Your task to perform on an android device: toggle data saver in the chrome app Image 0: 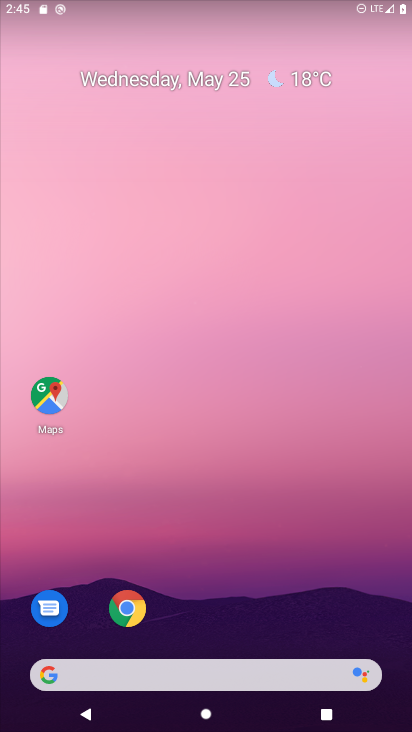
Step 0: click (127, 608)
Your task to perform on an android device: toggle data saver in the chrome app Image 1: 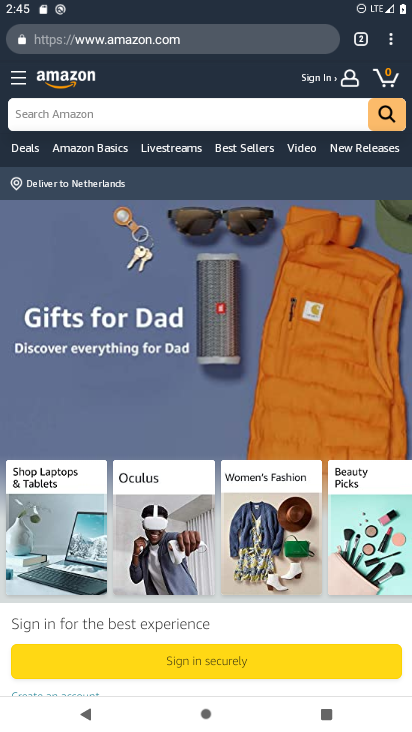
Step 1: click (388, 44)
Your task to perform on an android device: toggle data saver in the chrome app Image 2: 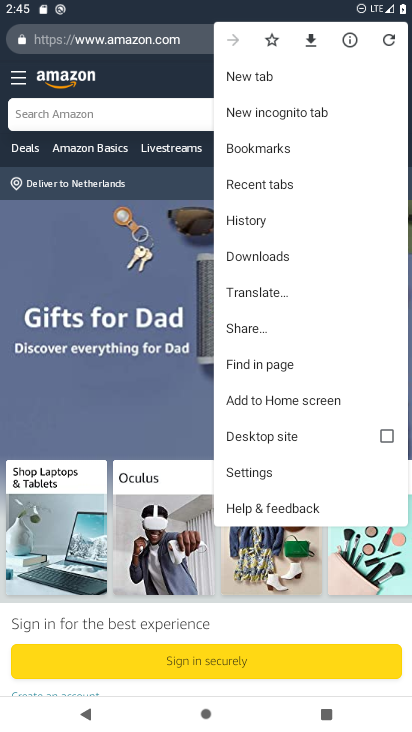
Step 2: click (252, 463)
Your task to perform on an android device: toggle data saver in the chrome app Image 3: 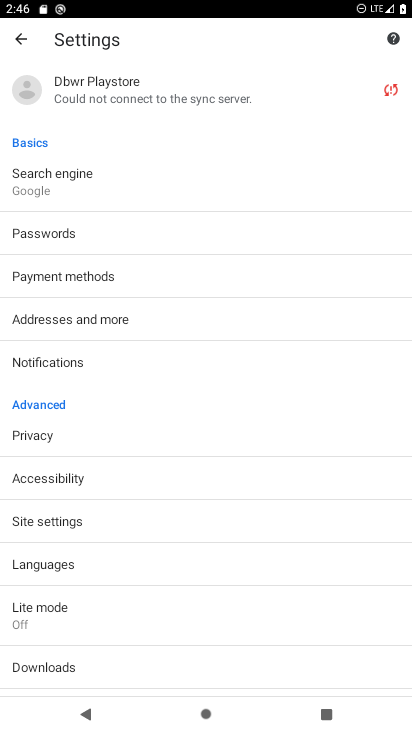
Step 3: click (39, 611)
Your task to perform on an android device: toggle data saver in the chrome app Image 4: 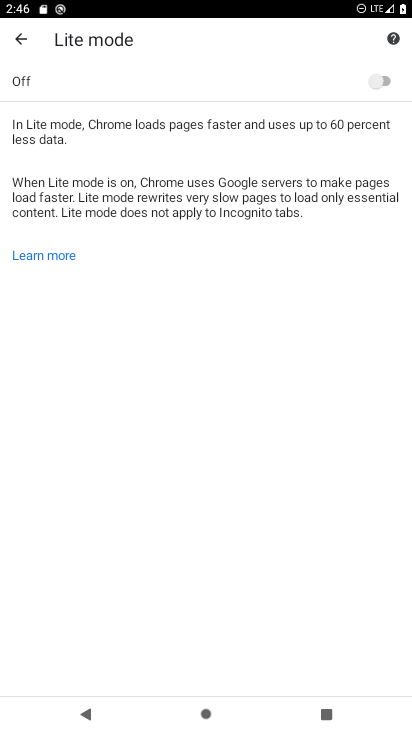
Step 4: click (386, 77)
Your task to perform on an android device: toggle data saver in the chrome app Image 5: 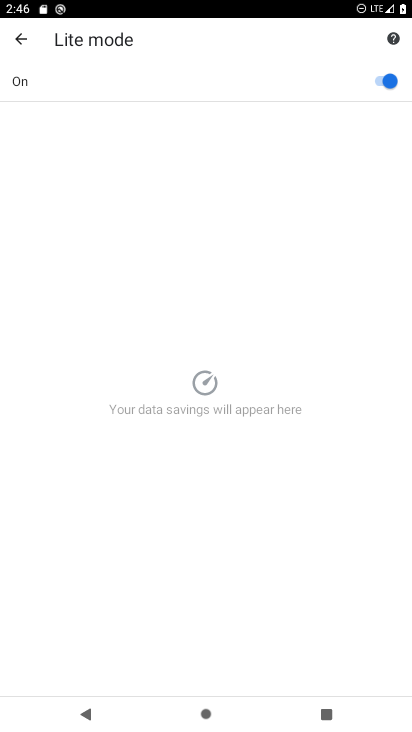
Step 5: task complete